Your task to perform on an android device: Open wifi settings Image 0: 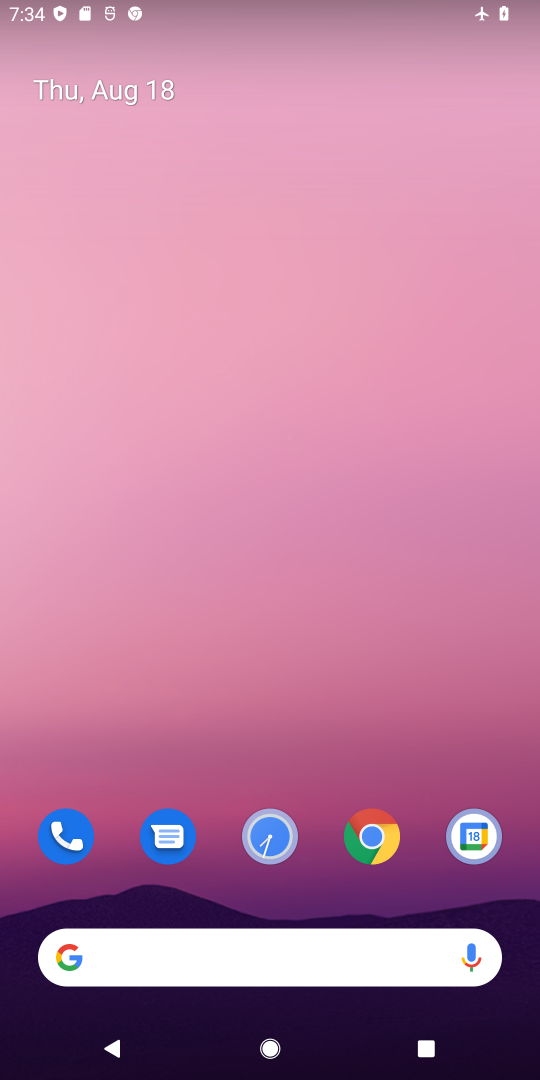
Step 0: drag from (359, 747) to (345, 44)
Your task to perform on an android device: Open wifi settings Image 1: 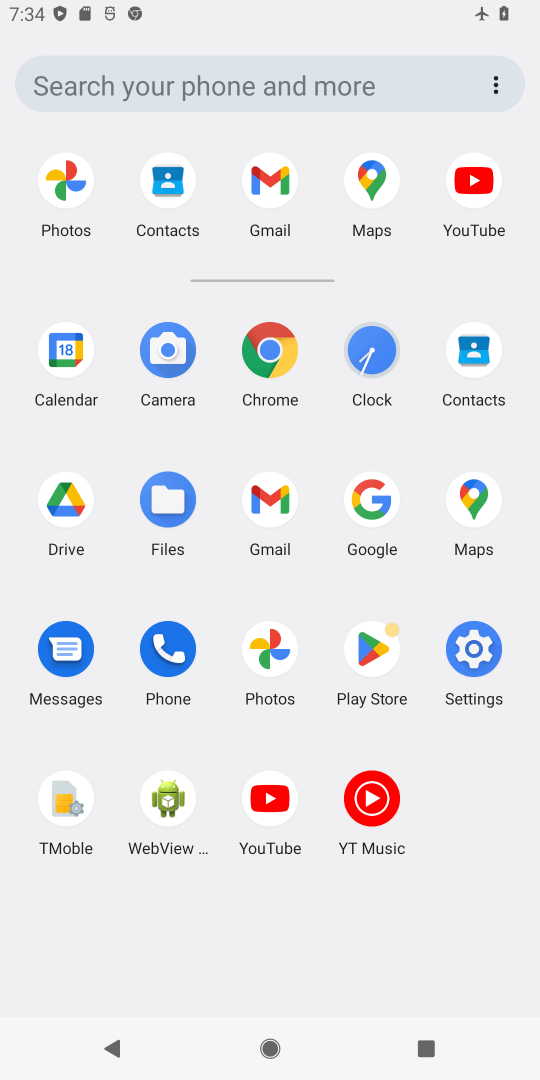
Step 1: click (489, 653)
Your task to perform on an android device: Open wifi settings Image 2: 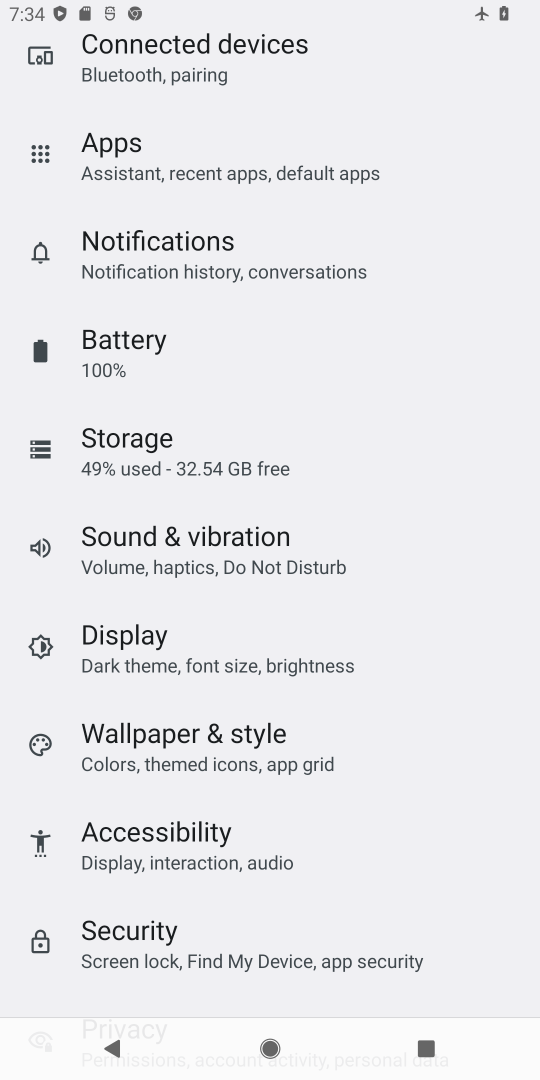
Step 2: drag from (288, 177) to (324, 830)
Your task to perform on an android device: Open wifi settings Image 3: 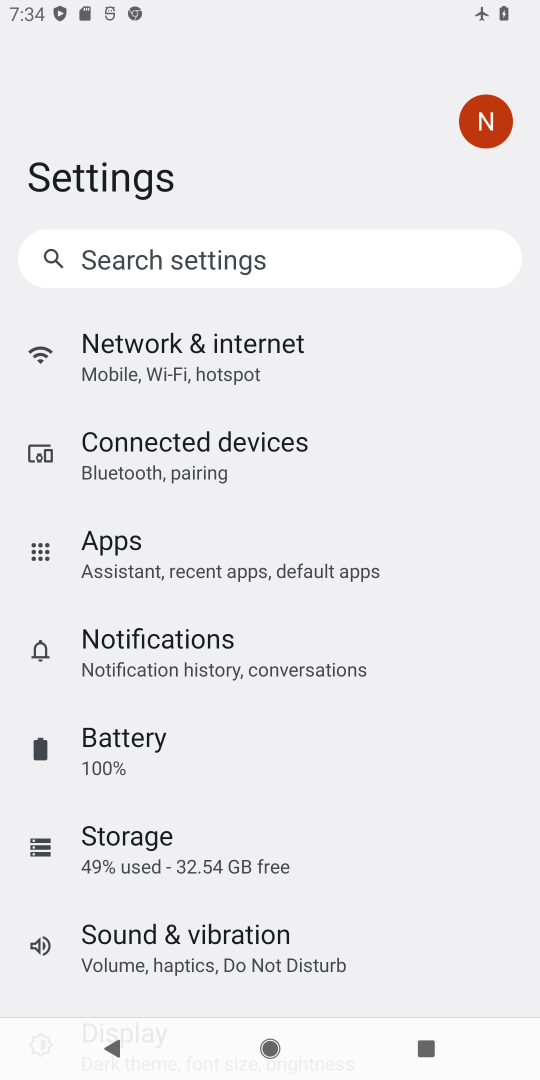
Step 3: drag from (301, 227) to (327, 637)
Your task to perform on an android device: Open wifi settings Image 4: 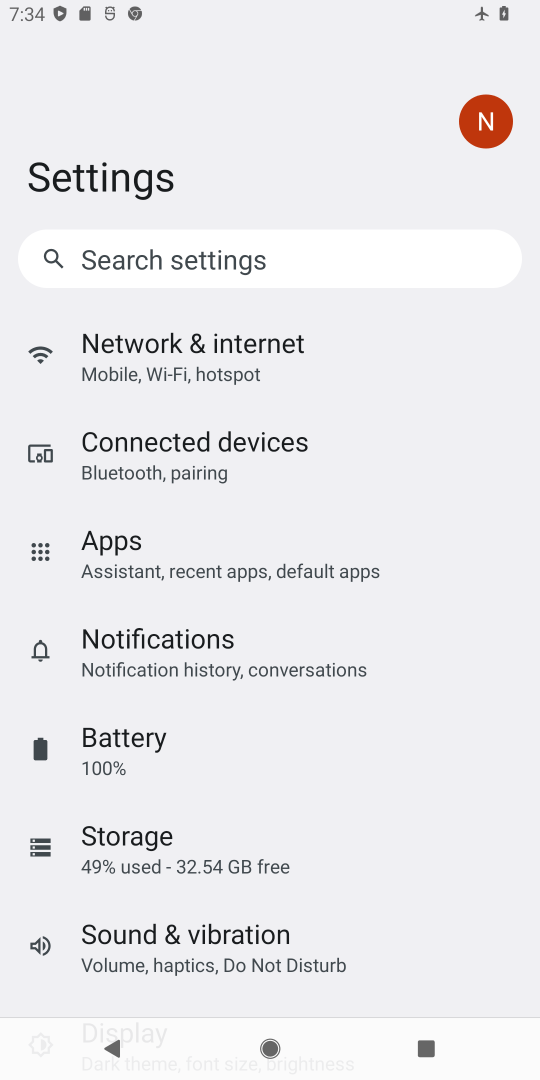
Step 4: click (187, 363)
Your task to perform on an android device: Open wifi settings Image 5: 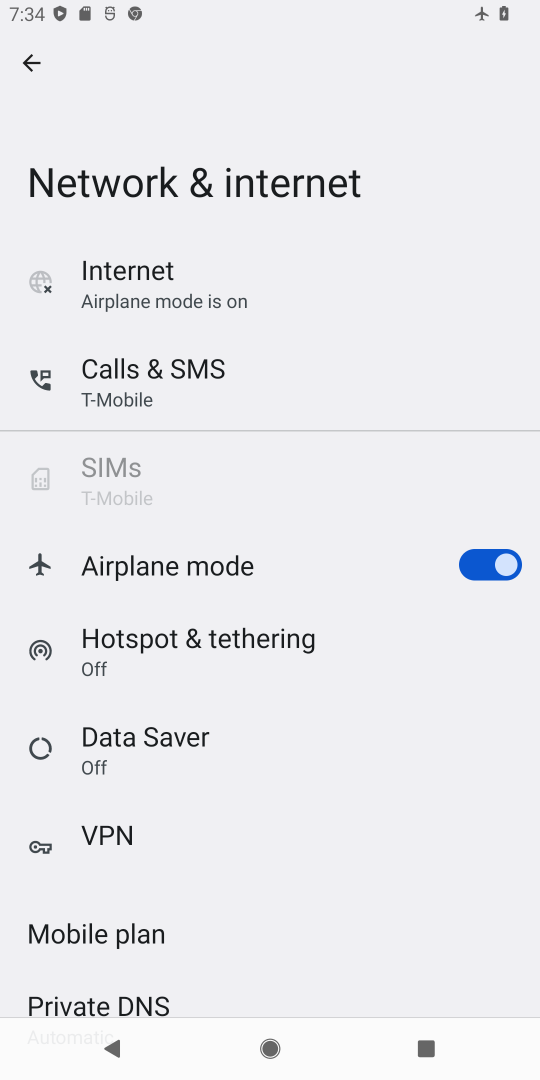
Step 5: click (196, 294)
Your task to perform on an android device: Open wifi settings Image 6: 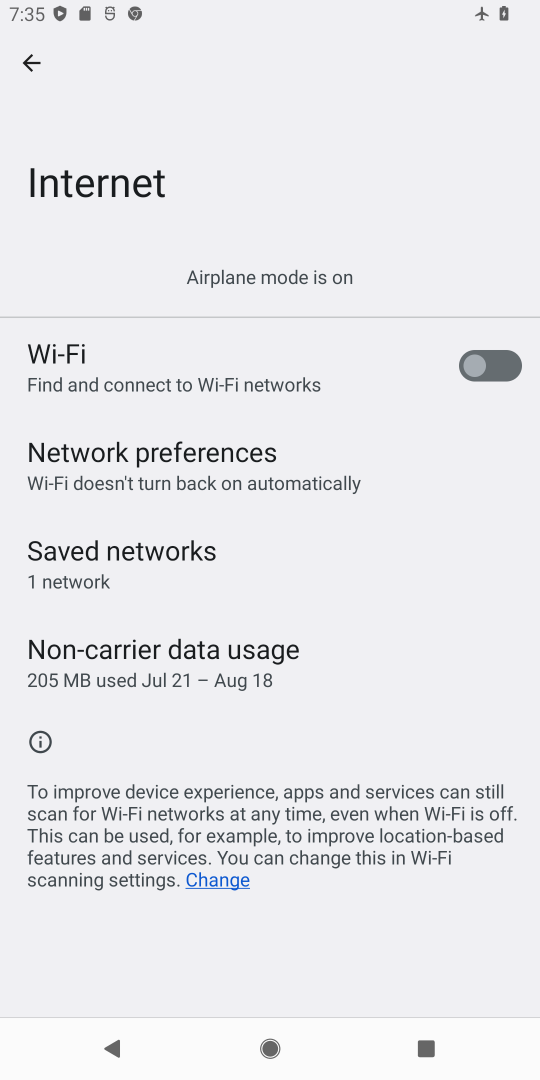
Step 6: click (181, 370)
Your task to perform on an android device: Open wifi settings Image 7: 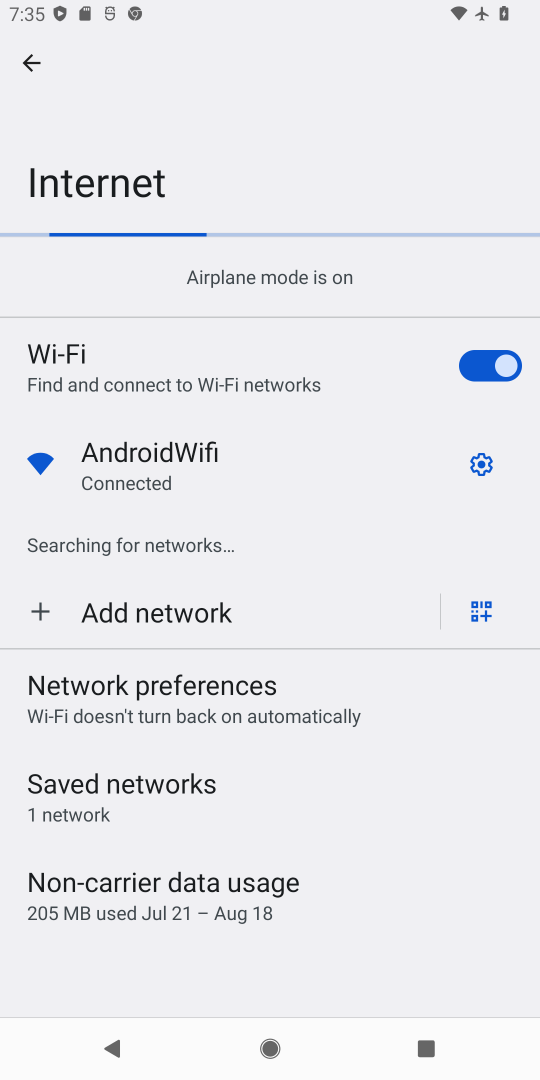
Step 7: click (489, 449)
Your task to perform on an android device: Open wifi settings Image 8: 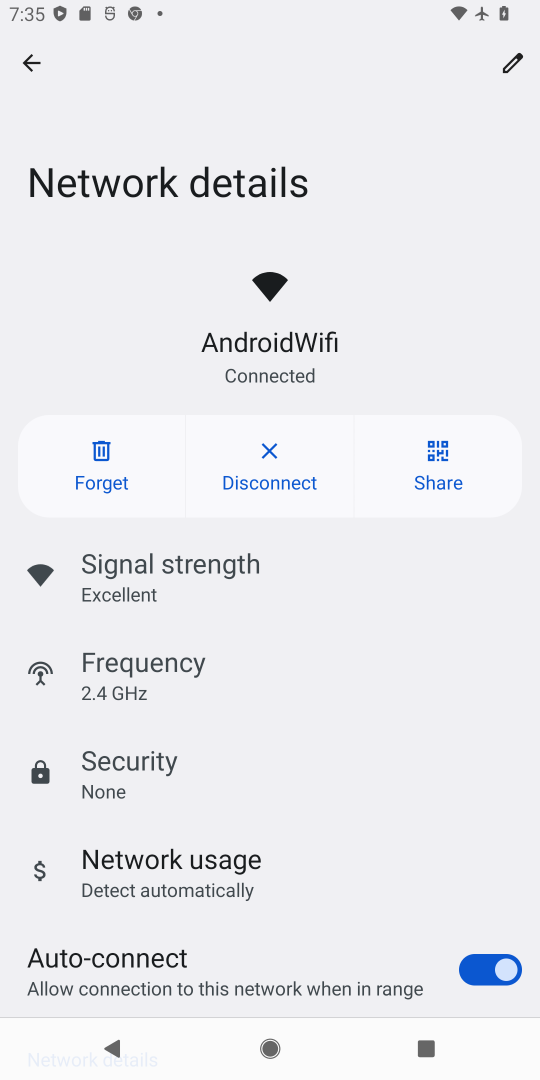
Step 8: task complete